Your task to perform on an android device: turn pop-ups on in chrome Image 0: 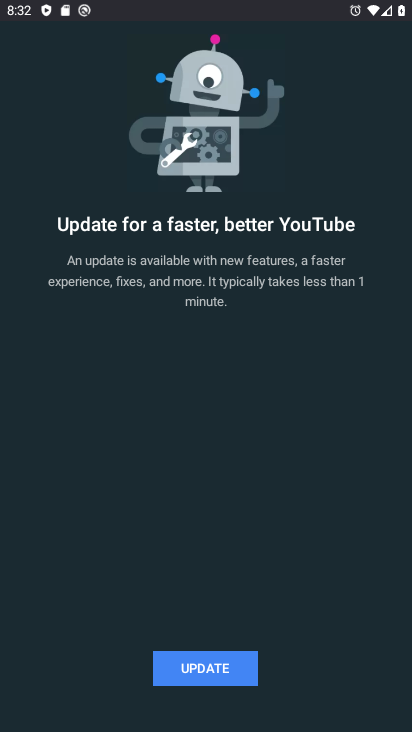
Step 0: press home button
Your task to perform on an android device: turn pop-ups on in chrome Image 1: 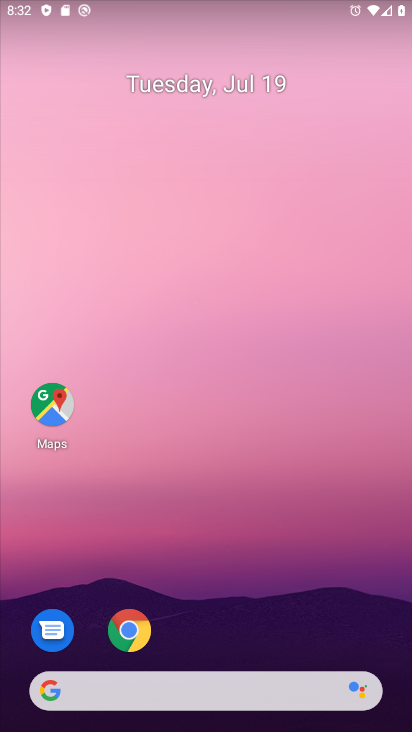
Step 1: click (135, 634)
Your task to perform on an android device: turn pop-ups on in chrome Image 2: 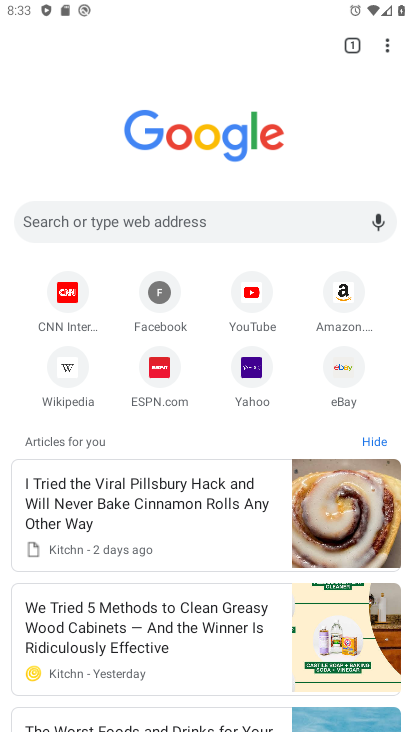
Step 2: click (379, 39)
Your task to perform on an android device: turn pop-ups on in chrome Image 3: 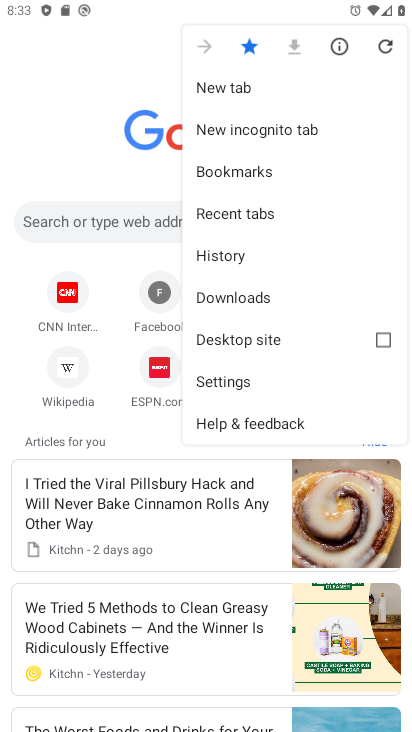
Step 3: task complete